Your task to perform on an android device: Search for Mexican restaurants on Maps Image 0: 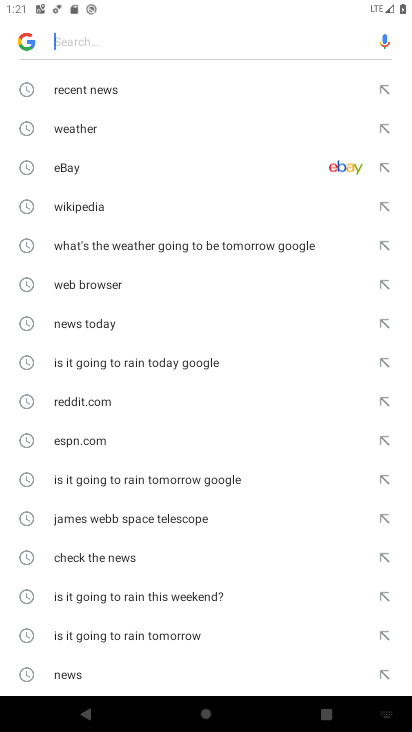
Step 0: press back button
Your task to perform on an android device: Search for Mexican restaurants on Maps Image 1: 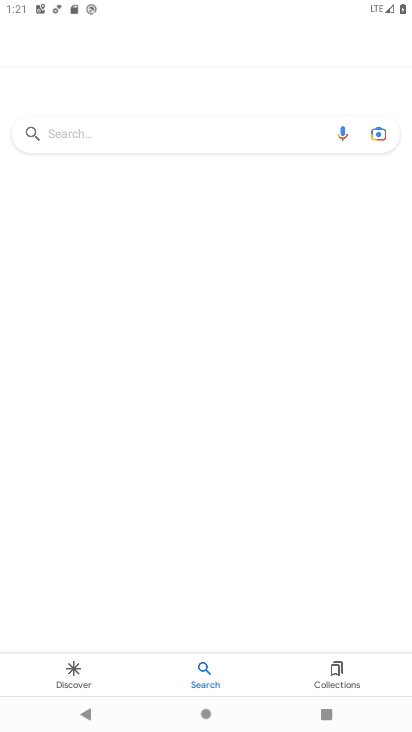
Step 1: press back button
Your task to perform on an android device: Search for Mexican restaurants on Maps Image 2: 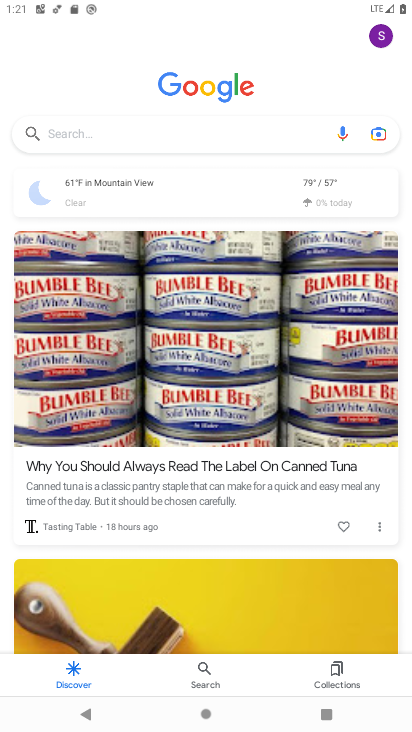
Step 2: press back button
Your task to perform on an android device: Search for Mexican restaurants on Maps Image 3: 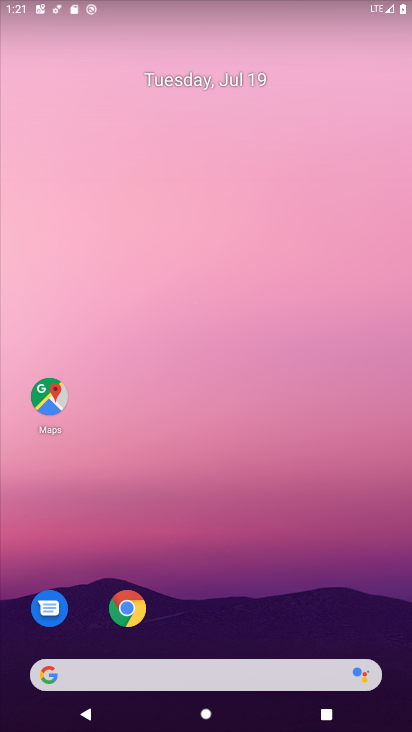
Step 3: drag from (257, 599) to (329, 96)
Your task to perform on an android device: Search for Mexican restaurants on Maps Image 4: 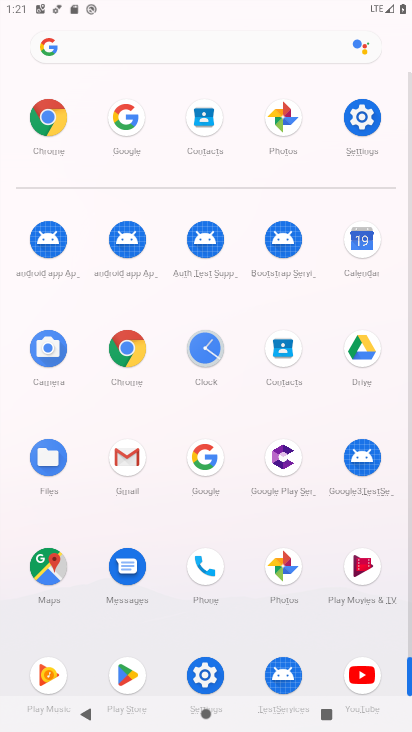
Step 4: click (40, 567)
Your task to perform on an android device: Search for Mexican restaurants on Maps Image 5: 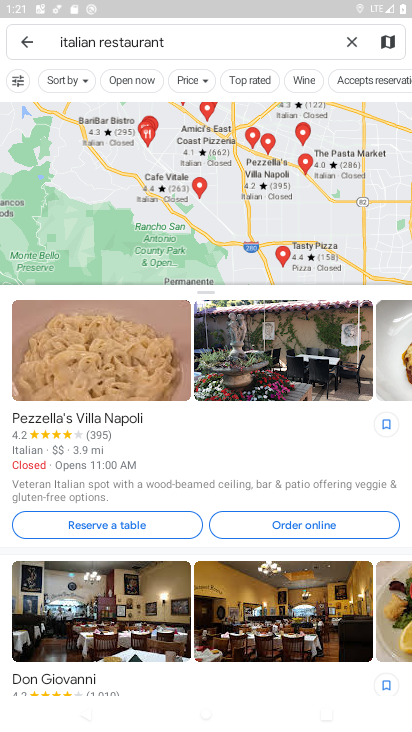
Step 5: click (349, 43)
Your task to perform on an android device: Search for Mexican restaurants on Maps Image 6: 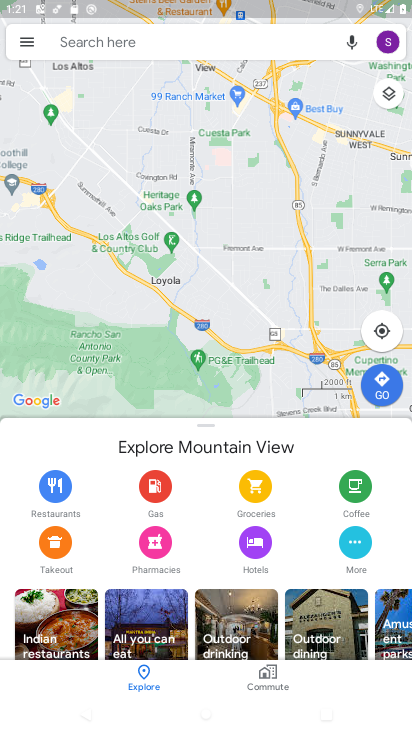
Step 6: click (151, 47)
Your task to perform on an android device: Search for Mexican restaurants on Maps Image 7: 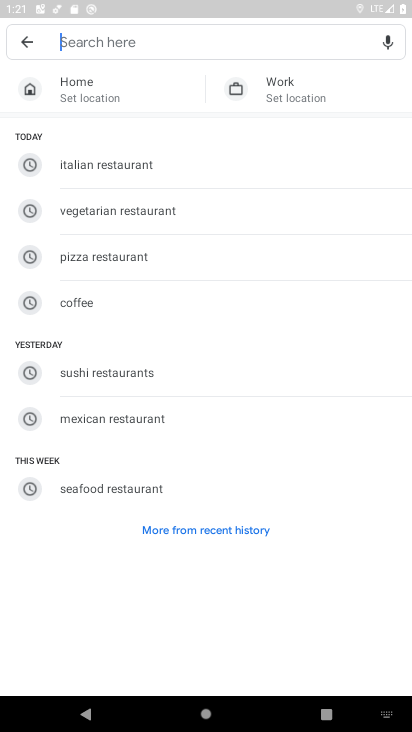
Step 7: click (161, 420)
Your task to perform on an android device: Search for Mexican restaurants on Maps Image 8: 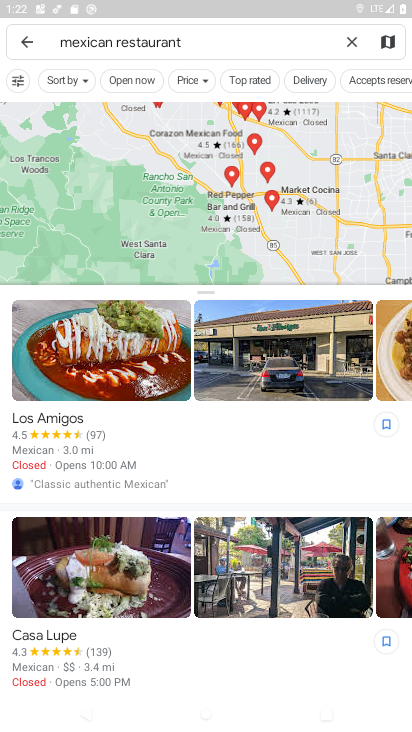
Step 8: task complete